Your task to perform on an android device: Show me popular games on the Play Store Image 0: 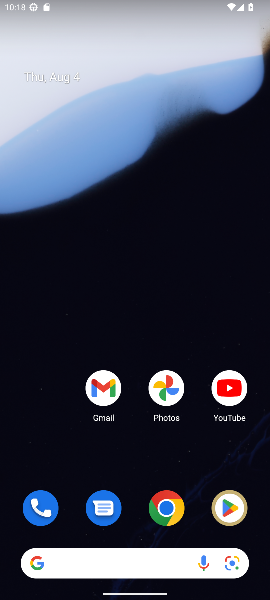
Step 0: click (240, 507)
Your task to perform on an android device: Show me popular games on the Play Store Image 1: 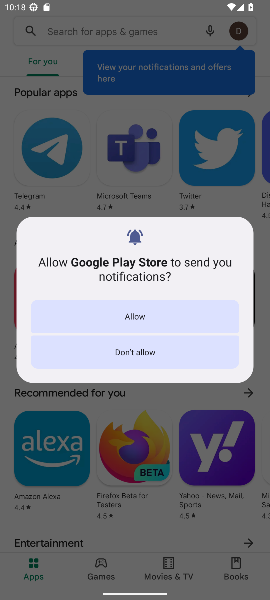
Step 1: click (120, 304)
Your task to perform on an android device: Show me popular games on the Play Store Image 2: 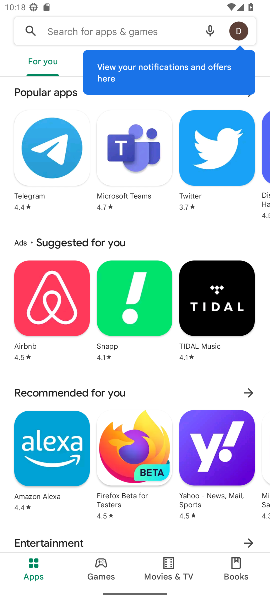
Step 2: task complete